Your task to perform on an android device: add a label to a message in the gmail app Image 0: 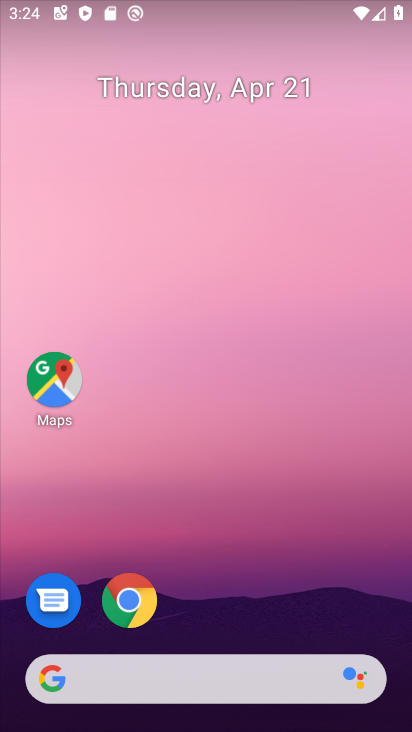
Step 0: drag from (233, 623) to (233, 346)
Your task to perform on an android device: add a label to a message in the gmail app Image 1: 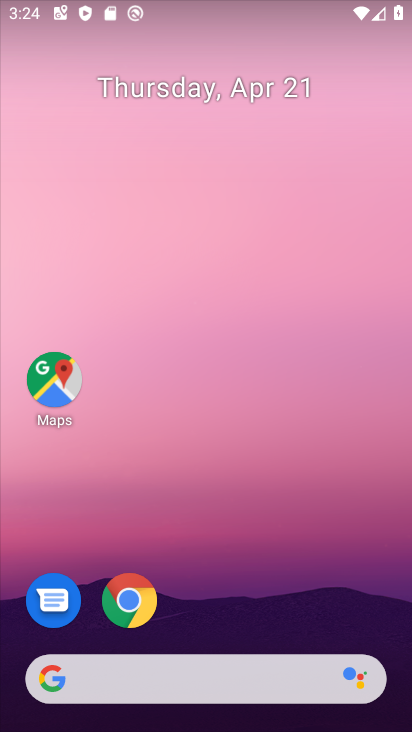
Step 1: drag from (239, 569) to (293, 151)
Your task to perform on an android device: add a label to a message in the gmail app Image 2: 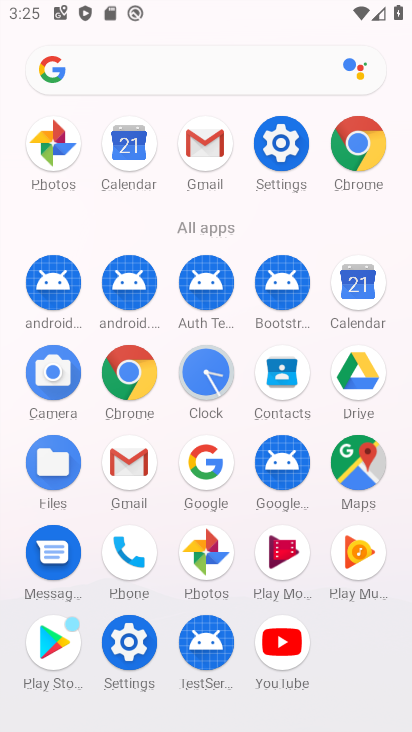
Step 2: click (138, 459)
Your task to perform on an android device: add a label to a message in the gmail app Image 3: 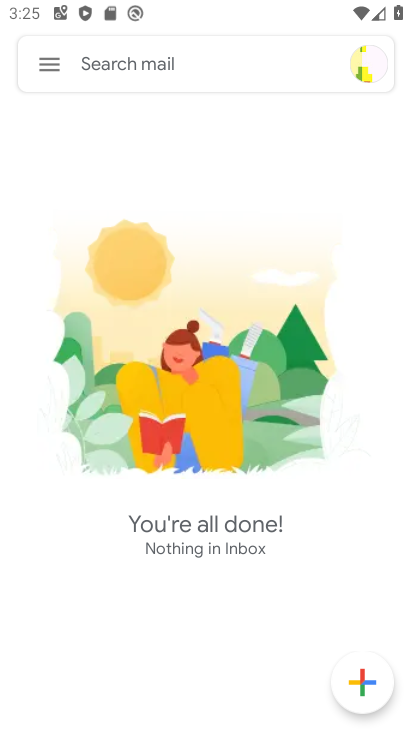
Step 3: click (35, 73)
Your task to perform on an android device: add a label to a message in the gmail app Image 4: 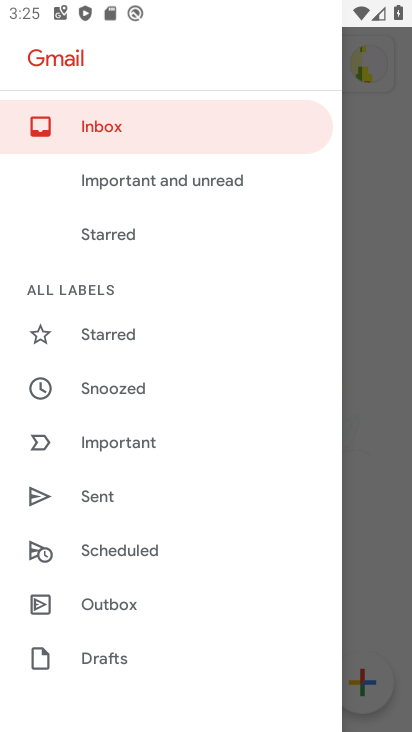
Step 4: drag from (118, 642) to (91, 469)
Your task to perform on an android device: add a label to a message in the gmail app Image 5: 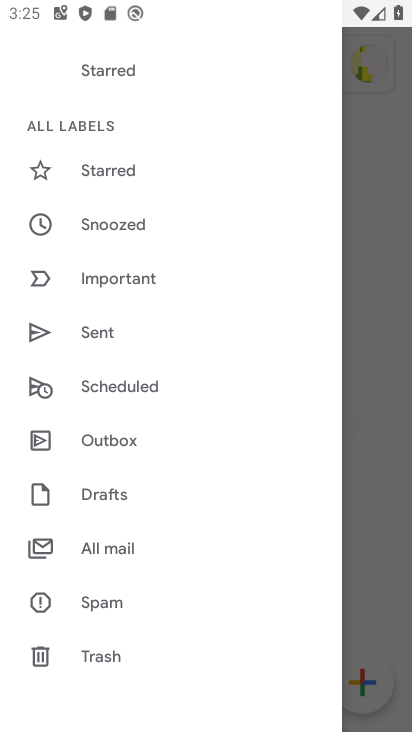
Step 5: click (140, 551)
Your task to perform on an android device: add a label to a message in the gmail app Image 6: 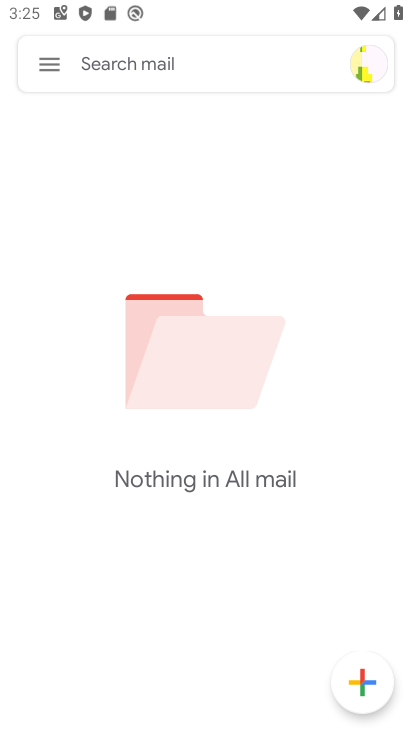
Step 6: task complete